Your task to perform on an android device: turn on notifications settings in the gmail app Image 0: 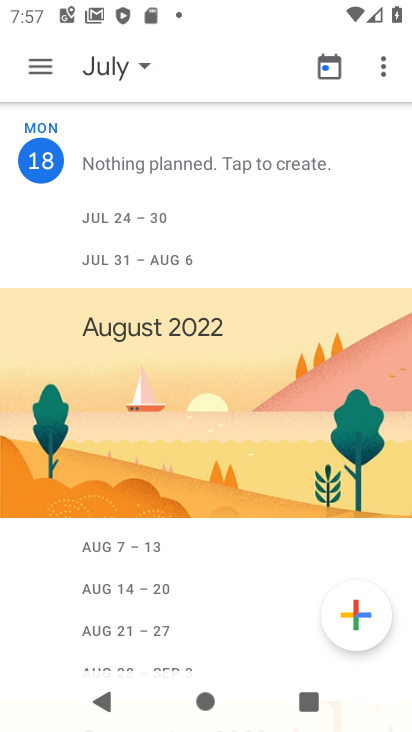
Step 0: press home button
Your task to perform on an android device: turn on notifications settings in the gmail app Image 1: 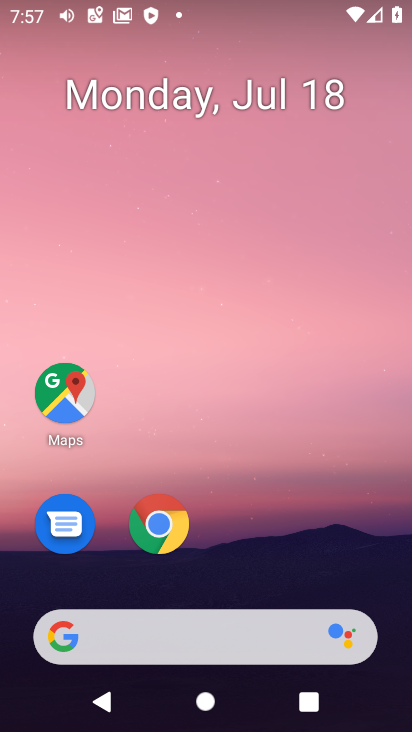
Step 1: drag from (274, 525) to (298, 112)
Your task to perform on an android device: turn on notifications settings in the gmail app Image 2: 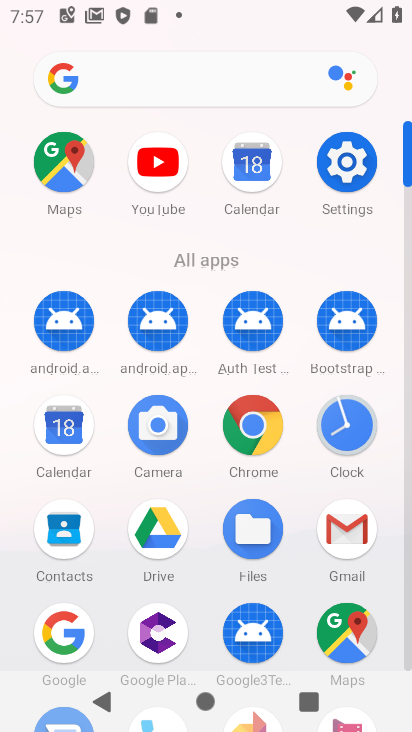
Step 2: click (338, 528)
Your task to perform on an android device: turn on notifications settings in the gmail app Image 3: 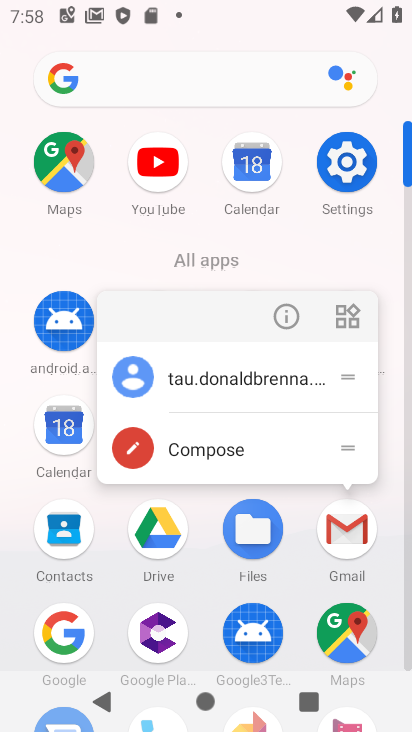
Step 3: click (338, 527)
Your task to perform on an android device: turn on notifications settings in the gmail app Image 4: 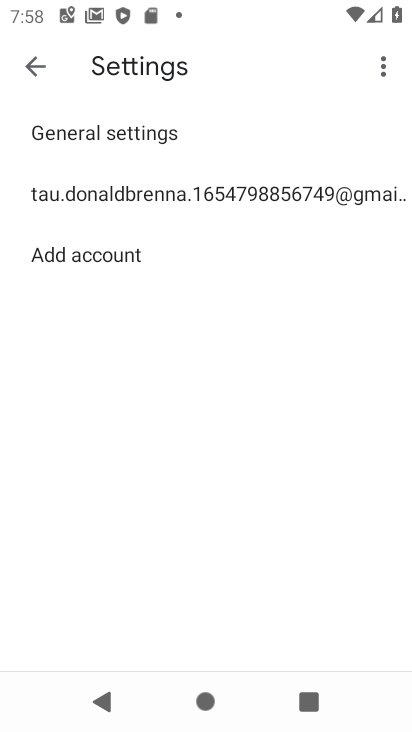
Step 4: click (146, 135)
Your task to perform on an android device: turn on notifications settings in the gmail app Image 5: 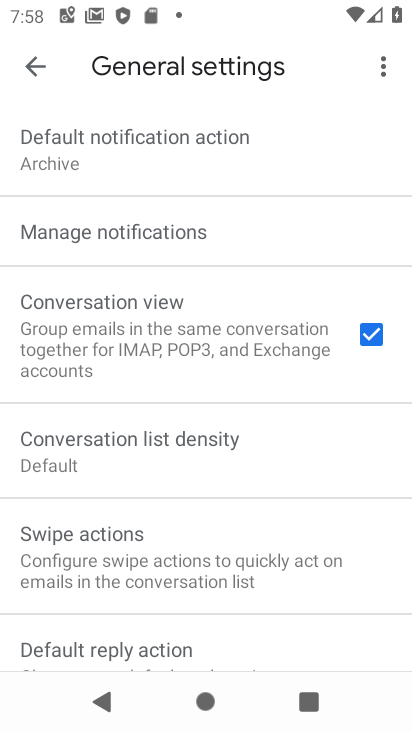
Step 5: click (155, 226)
Your task to perform on an android device: turn on notifications settings in the gmail app Image 6: 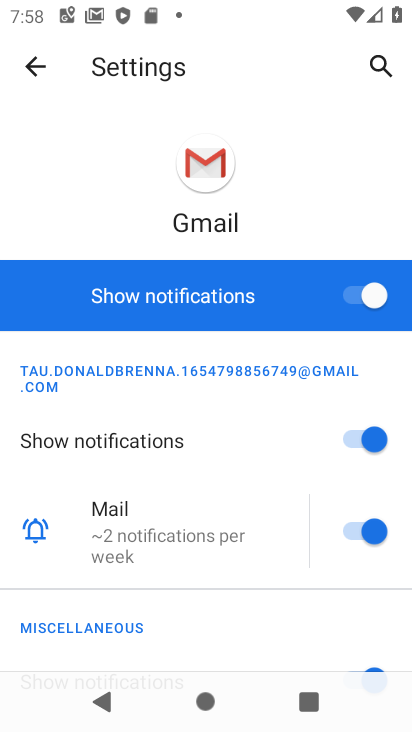
Step 6: task complete